Your task to perform on an android device: Go to settings Image 0: 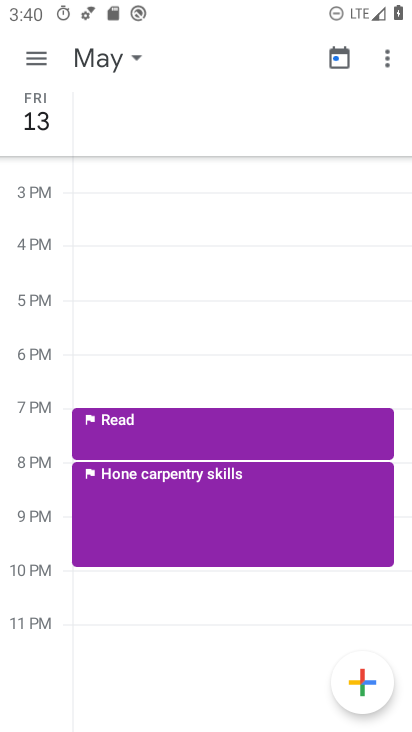
Step 0: press home button
Your task to perform on an android device: Go to settings Image 1: 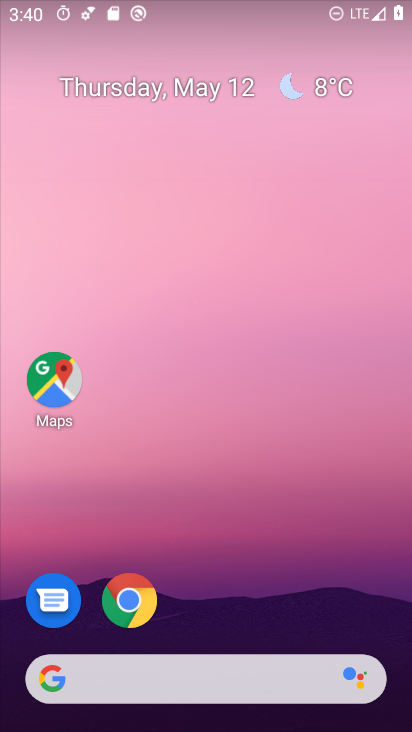
Step 1: drag from (221, 720) to (212, 156)
Your task to perform on an android device: Go to settings Image 2: 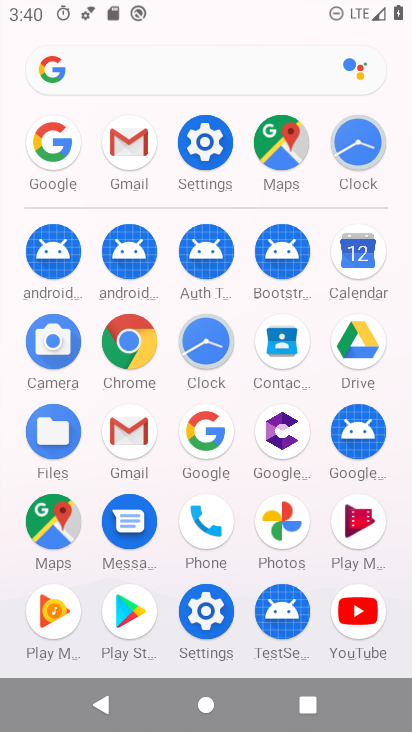
Step 2: click (204, 145)
Your task to perform on an android device: Go to settings Image 3: 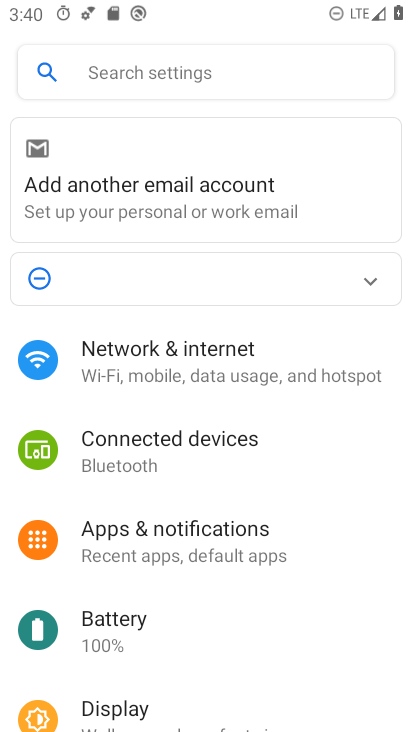
Step 3: task complete